Your task to perform on an android device: empty trash in google photos Image 0: 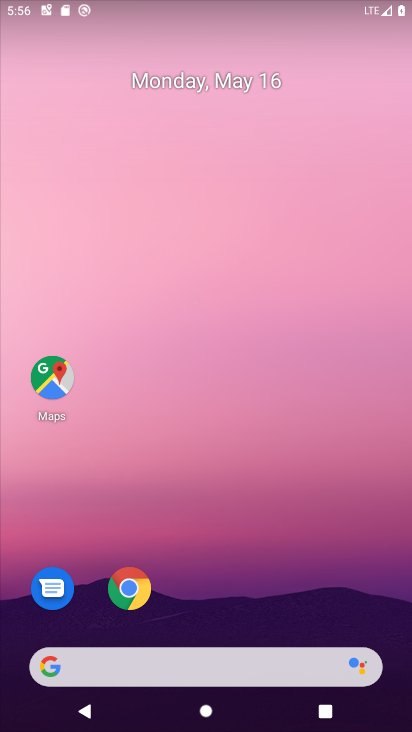
Step 0: drag from (285, 570) to (209, 11)
Your task to perform on an android device: empty trash in google photos Image 1: 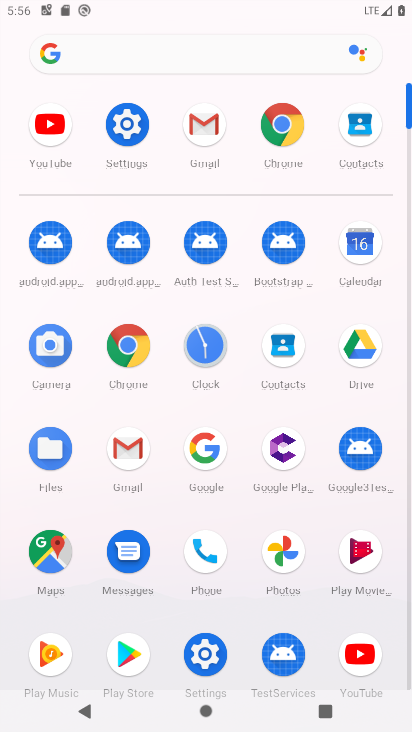
Step 1: click (281, 559)
Your task to perform on an android device: empty trash in google photos Image 2: 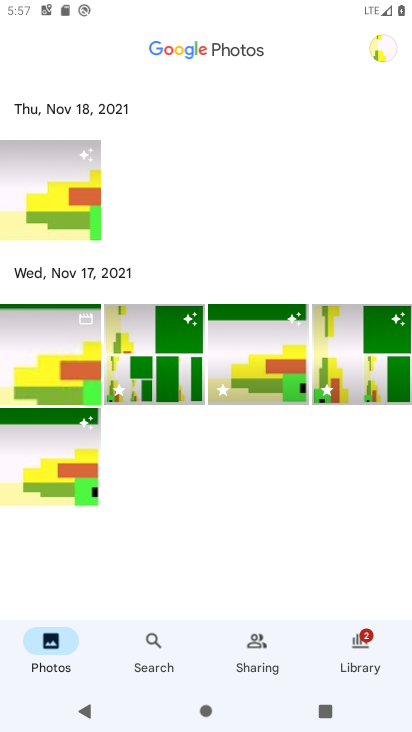
Step 2: click (352, 645)
Your task to perform on an android device: empty trash in google photos Image 3: 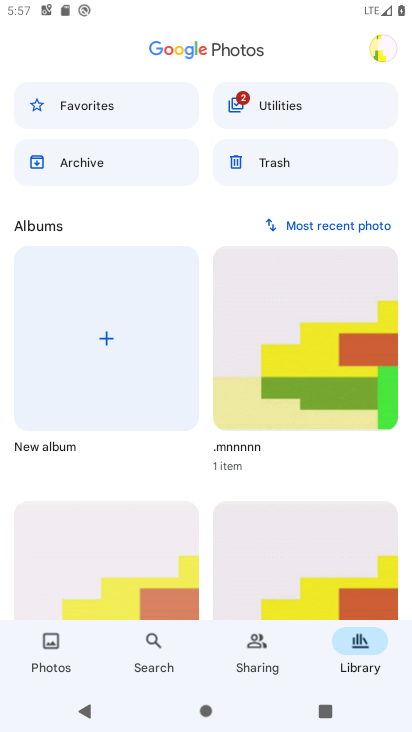
Step 3: click (311, 165)
Your task to perform on an android device: empty trash in google photos Image 4: 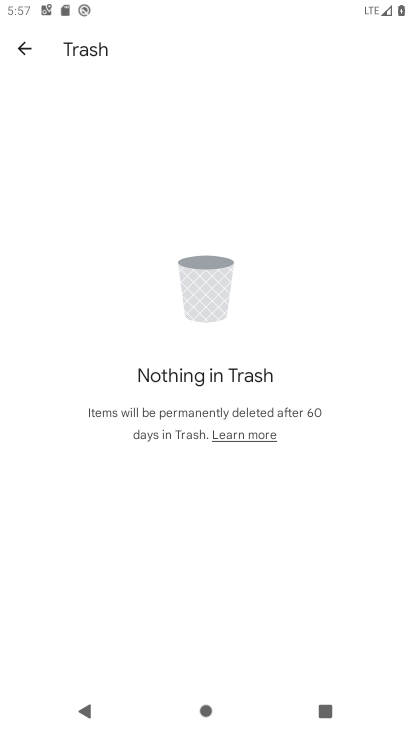
Step 4: task complete